Your task to perform on an android device: How do I get to the nearest Home Depot? Image 0: 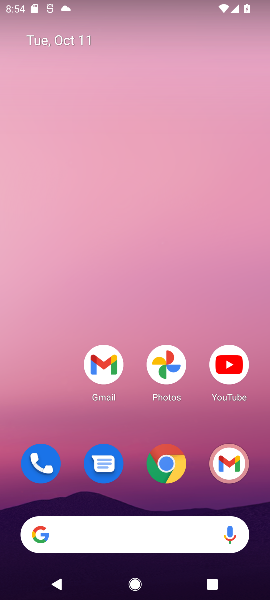
Step 0: drag from (138, 491) to (134, 80)
Your task to perform on an android device: How do I get to the nearest Home Depot? Image 1: 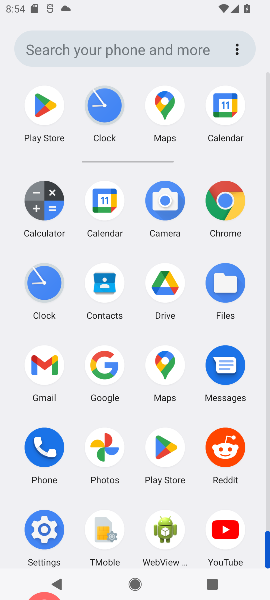
Step 1: click (101, 355)
Your task to perform on an android device: How do I get to the nearest Home Depot? Image 2: 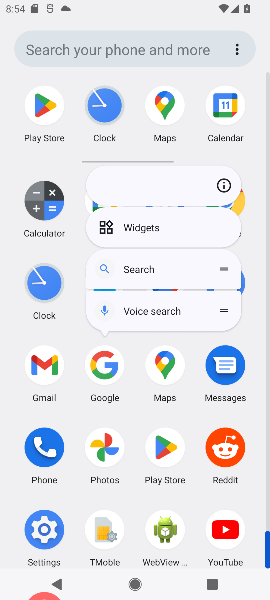
Step 2: click (111, 367)
Your task to perform on an android device: How do I get to the nearest Home Depot? Image 3: 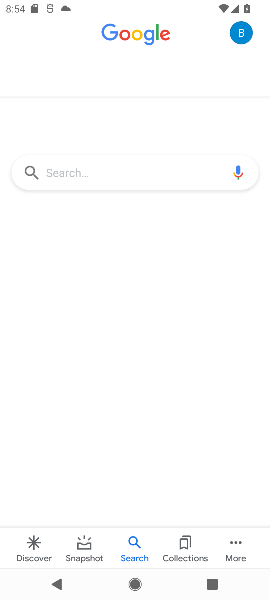
Step 3: click (133, 165)
Your task to perform on an android device: How do I get to the nearest Home Depot? Image 4: 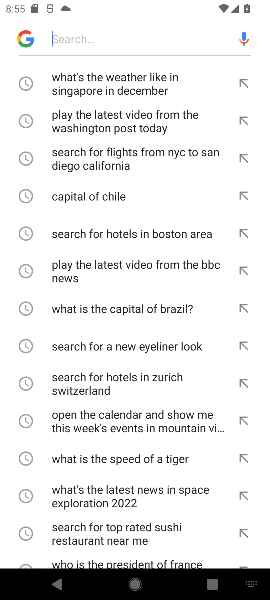
Step 4: click (147, 30)
Your task to perform on an android device: How do I get to the nearest Home Depot? Image 5: 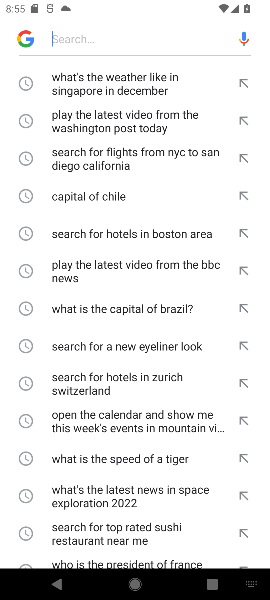
Step 5: type "How do I get to the nearest Home Depot? "
Your task to perform on an android device: How do I get to the nearest Home Depot? Image 6: 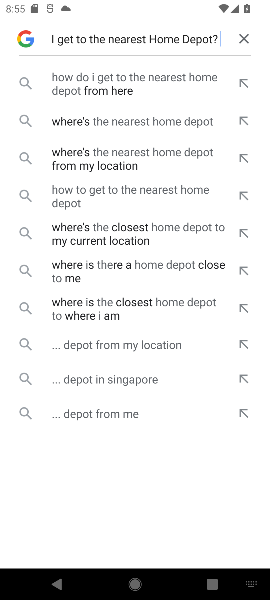
Step 6: click (104, 76)
Your task to perform on an android device: How do I get to the nearest Home Depot? Image 7: 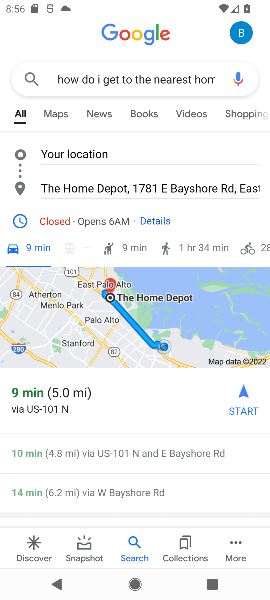
Step 7: task complete